Your task to perform on an android device: turn off smart reply in the gmail app Image 0: 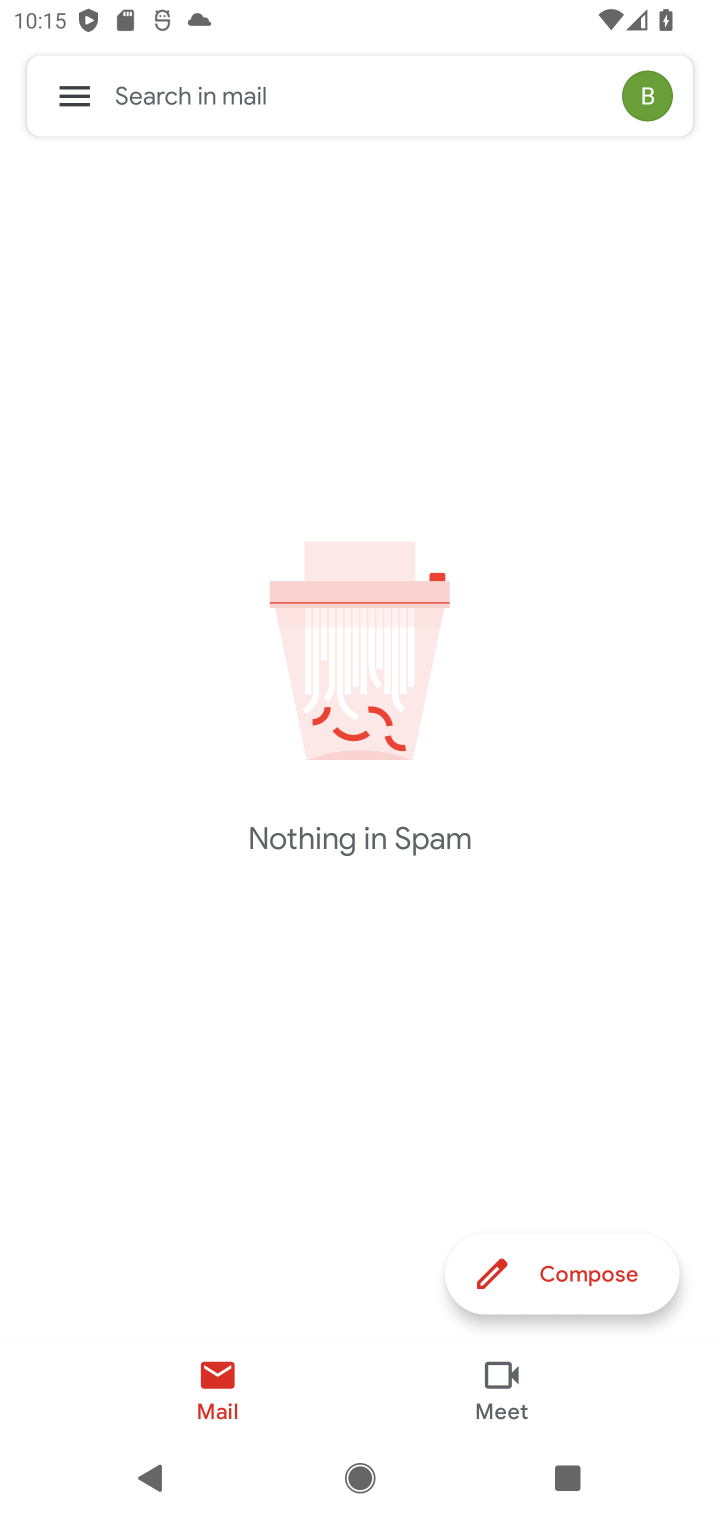
Step 0: click (71, 75)
Your task to perform on an android device: turn off smart reply in the gmail app Image 1: 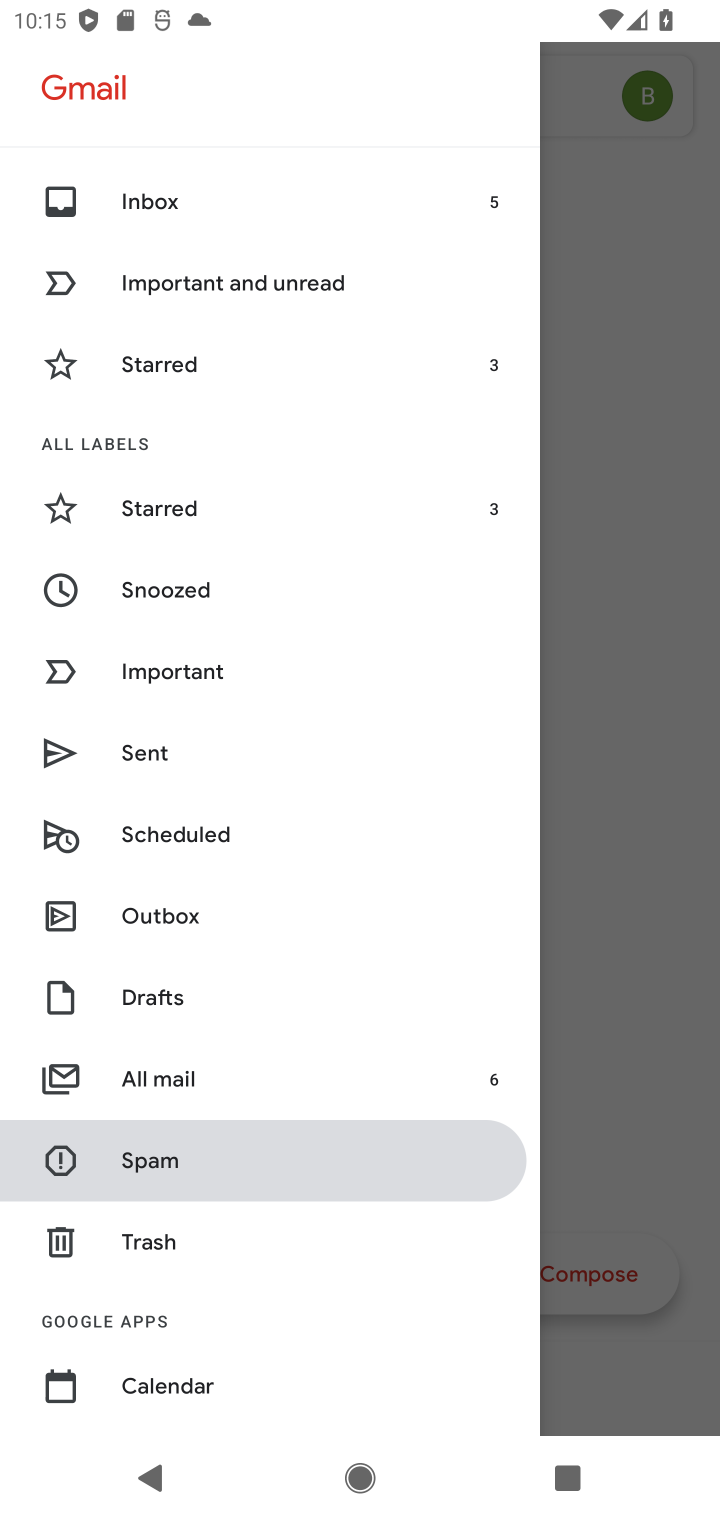
Step 1: drag from (352, 1346) to (312, 353)
Your task to perform on an android device: turn off smart reply in the gmail app Image 2: 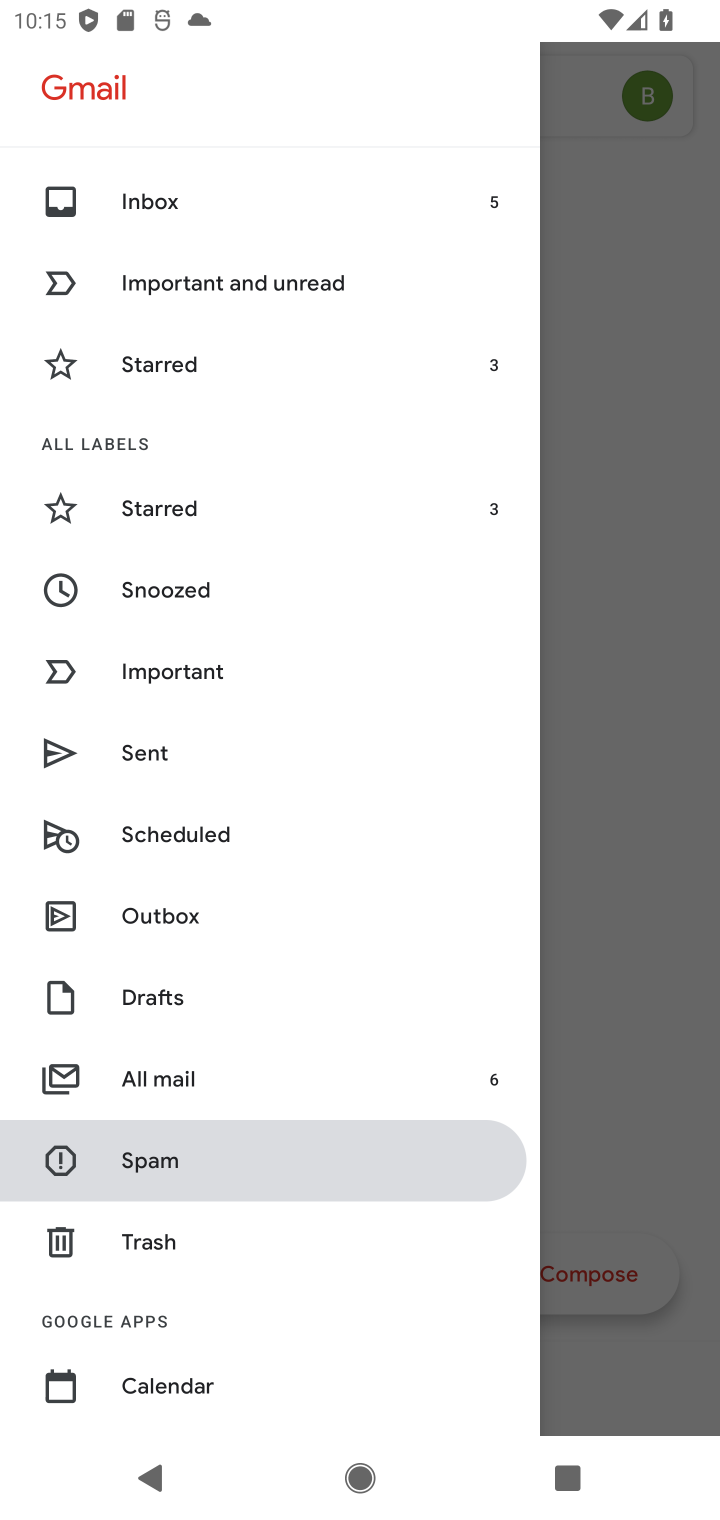
Step 2: drag from (332, 1363) to (300, 318)
Your task to perform on an android device: turn off smart reply in the gmail app Image 3: 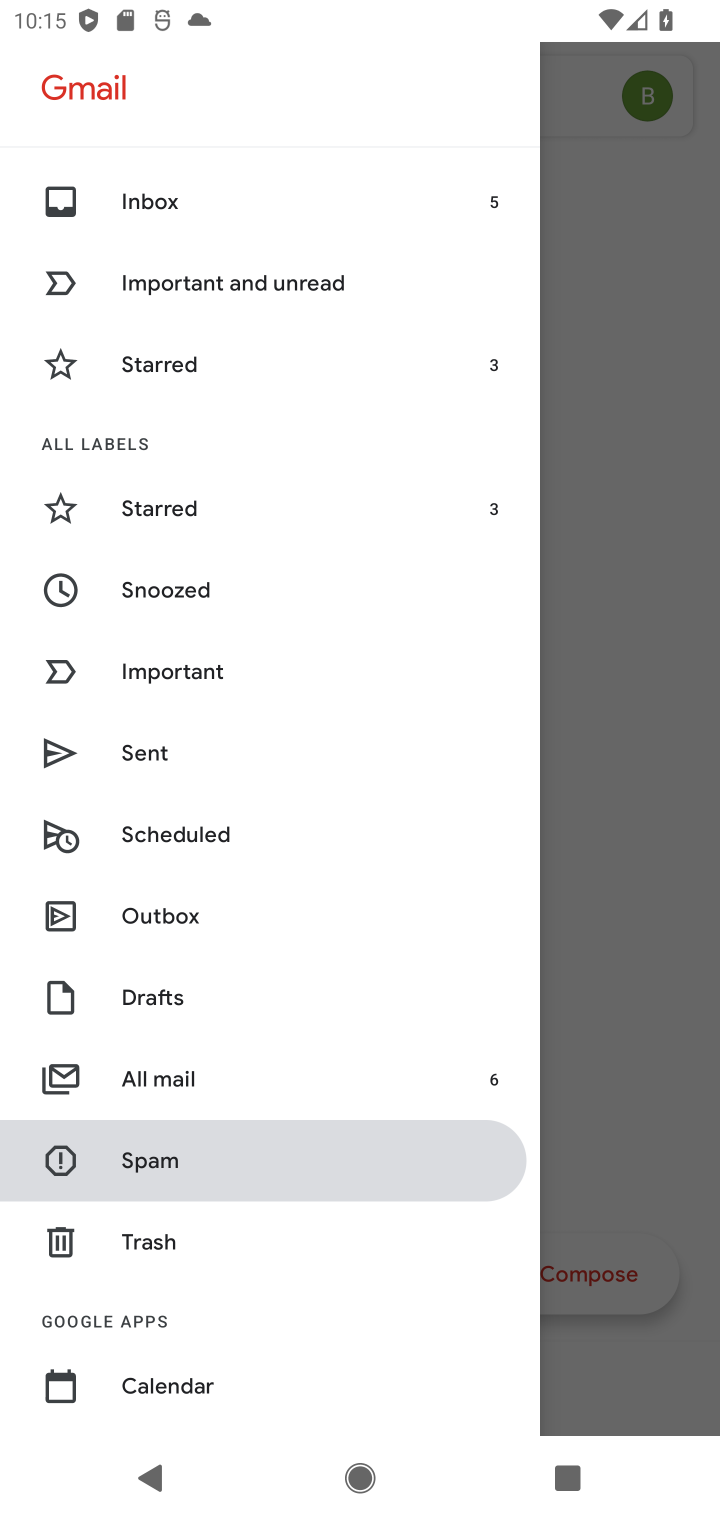
Step 3: drag from (306, 1223) to (262, 460)
Your task to perform on an android device: turn off smart reply in the gmail app Image 4: 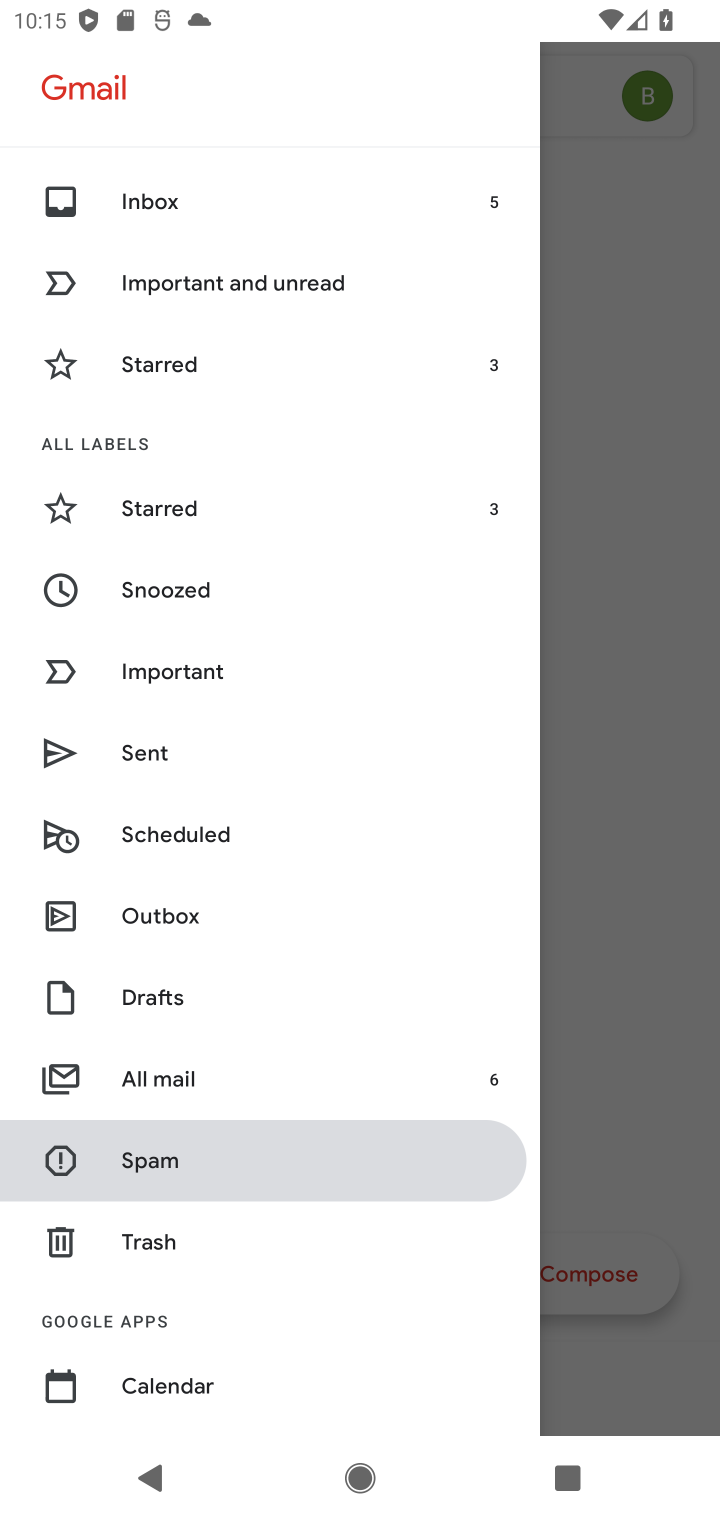
Step 4: drag from (438, 1307) to (435, 349)
Your task to perform on an android device: turn off smart reply in the gmail app Image 5: 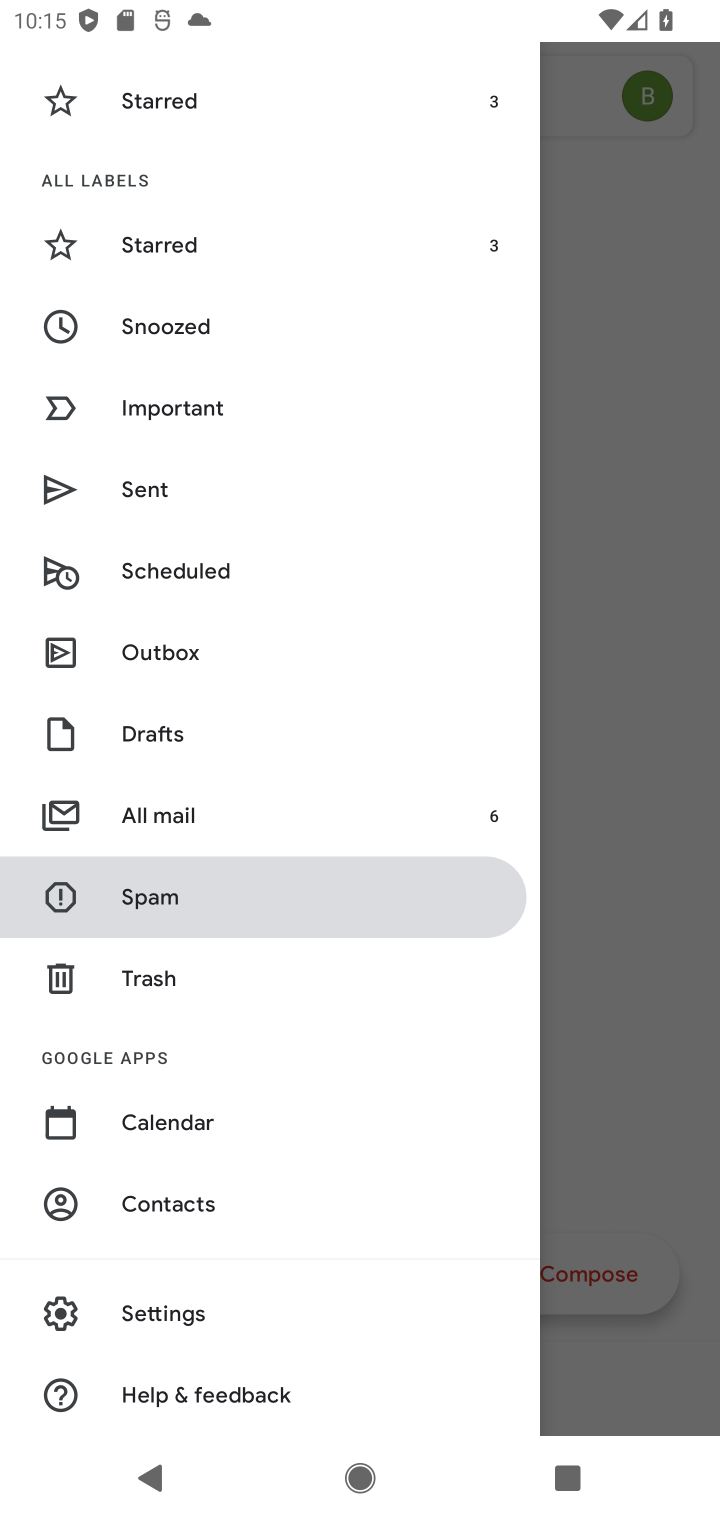
Step 5: click (207, 1312)
Your task to perform on an android device: turn off smart reply in the gmail app Image 6: 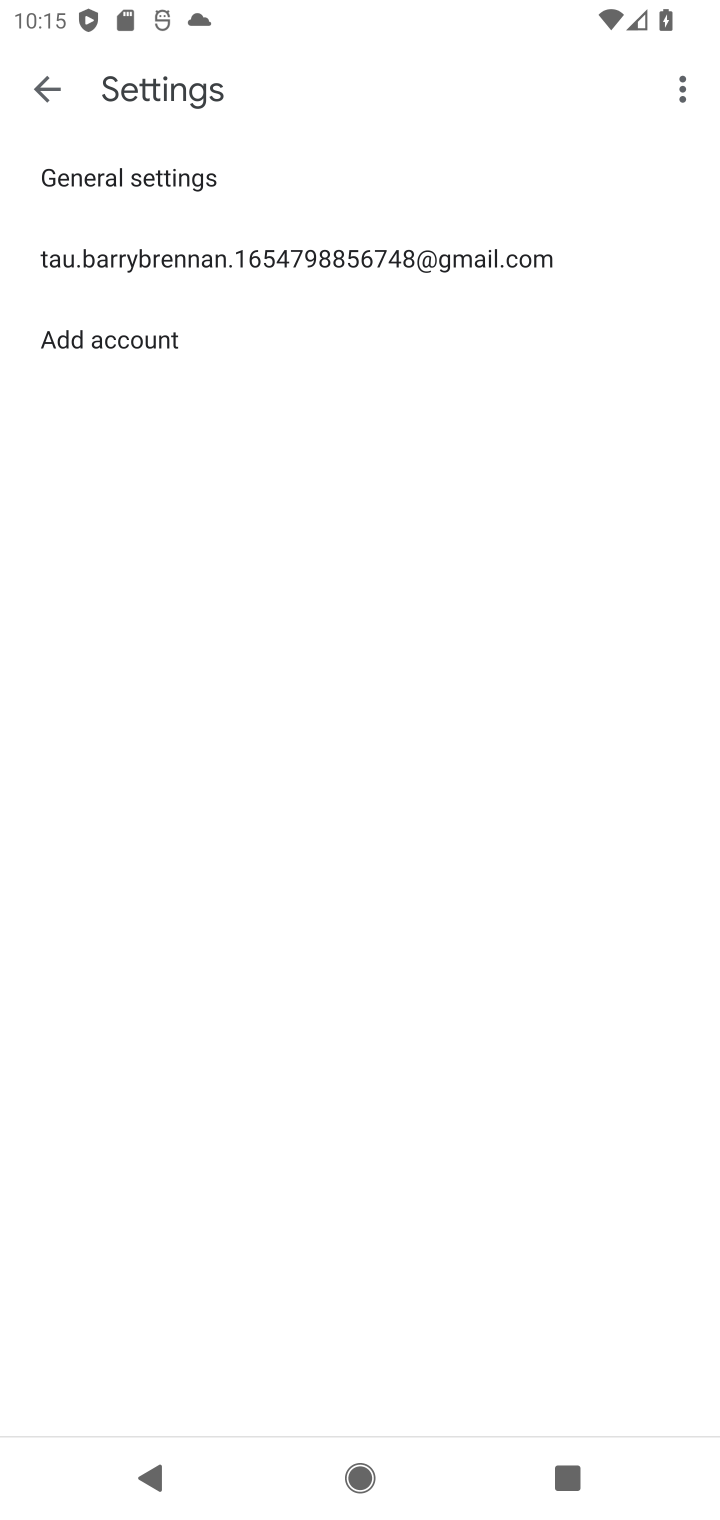
Step 6: click (478, 245)
Your task to perform on an android device: turn off smart reply in the gmail app Image 7: 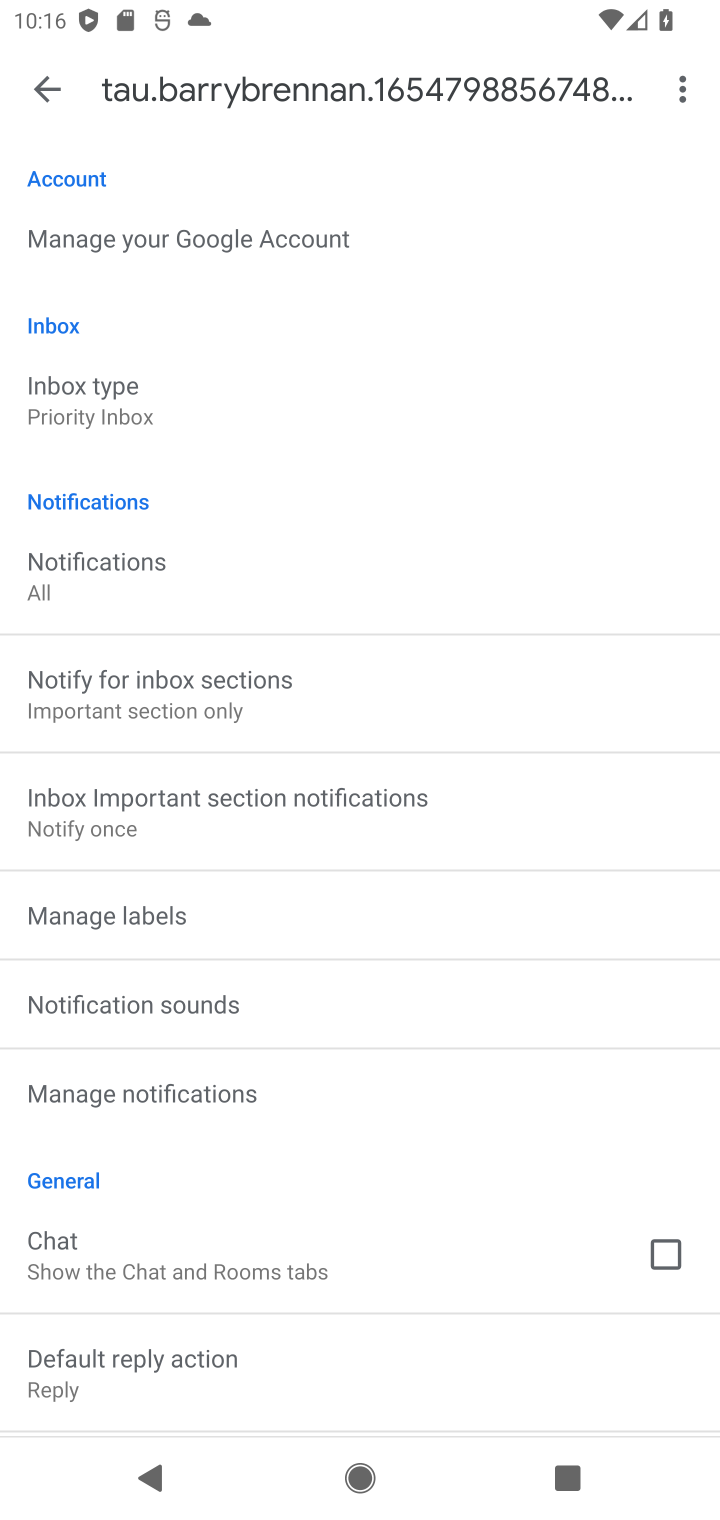
Step 7: drag from (212, 1355) to (362, 302)
Your task to perform on an android device: turn off smart reply in the gmail app Image 8: 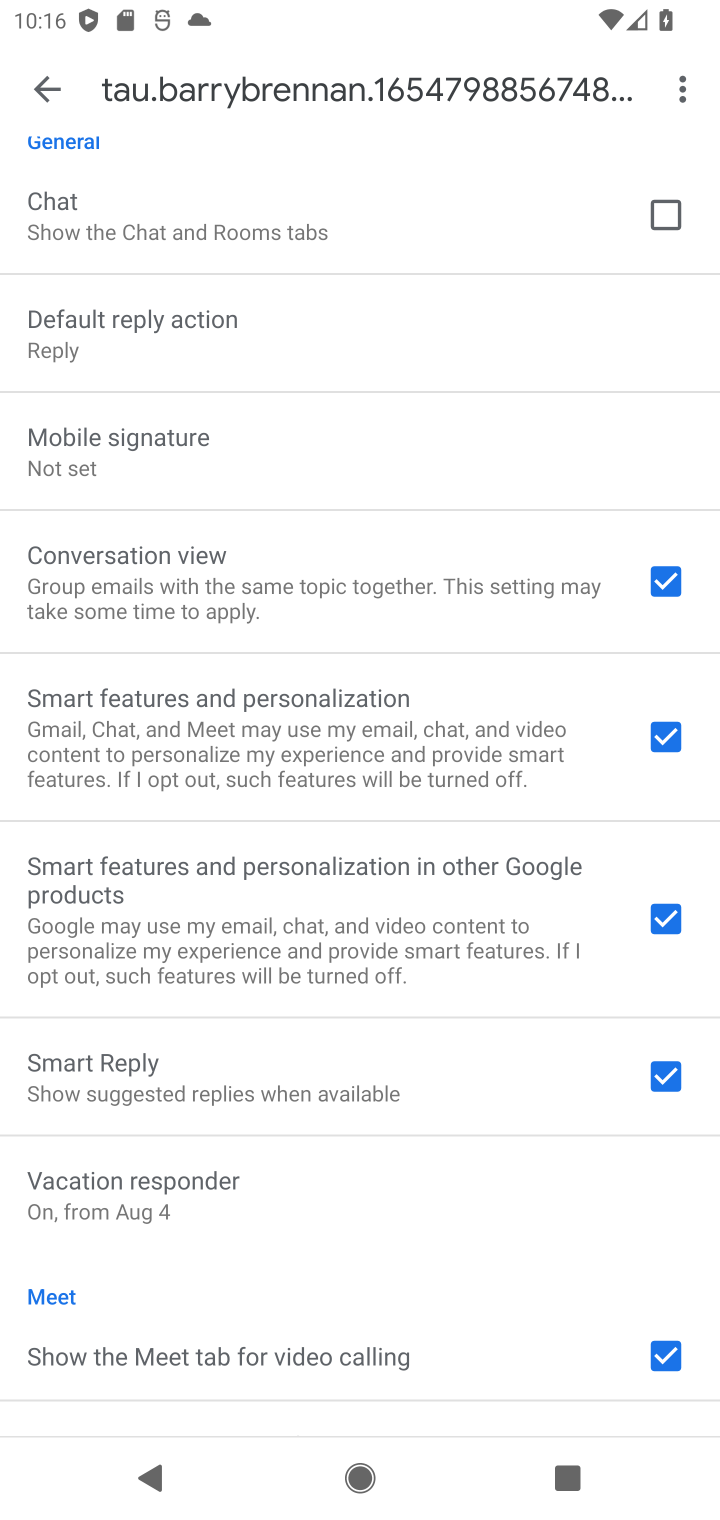
Step 8: click (661, 1069)
Your task to perform on an android device: turn off smart reply in the gmail app Image 9: 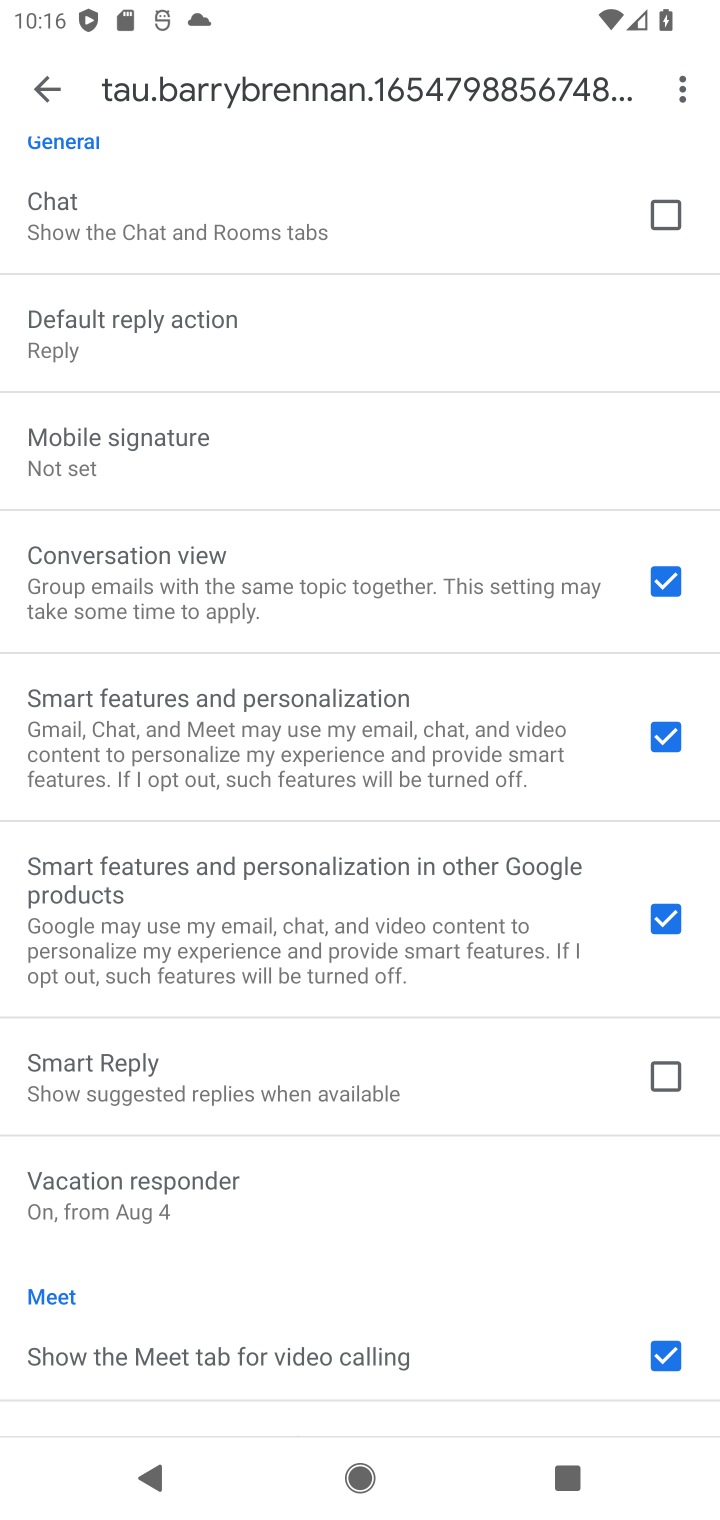
Step 9: task complete